Your task to perform on an android device: Open the web browser Image 0: 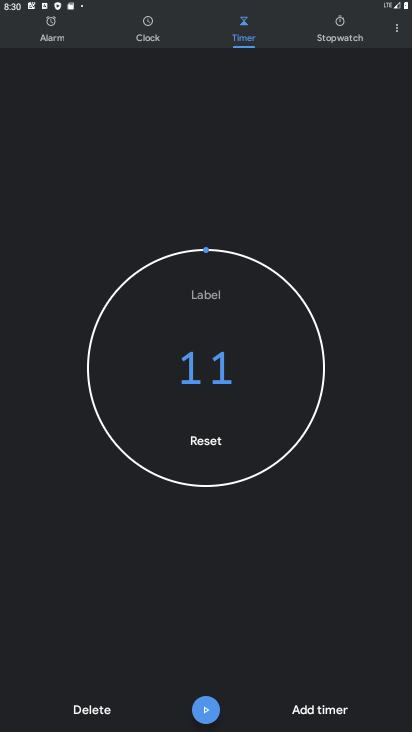
Step 0: press home button
Your task to perform on an android device: Open the web browser Image 1: 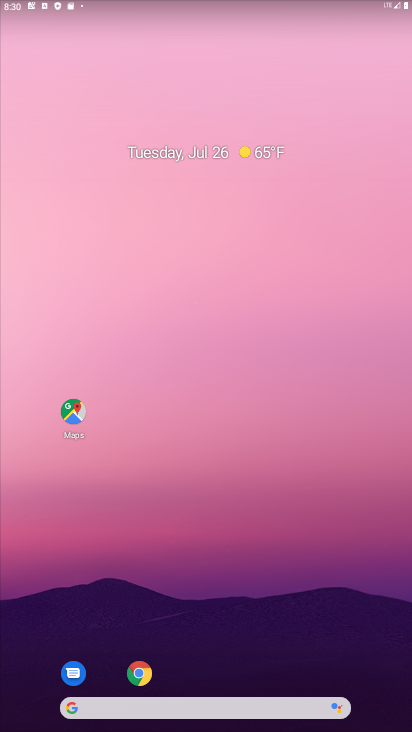
Step 1: click (149, 673)
Your task to perform on an android device: Open the web browser Image 2: 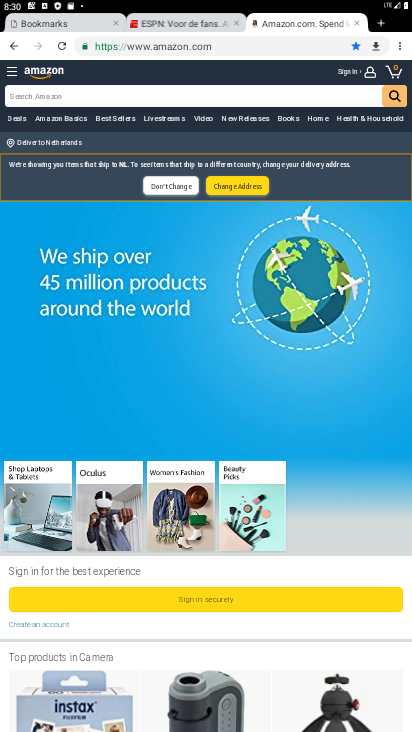
Step 2: task complete